Your task to perform on an android device: all mails in gmail Image 0: 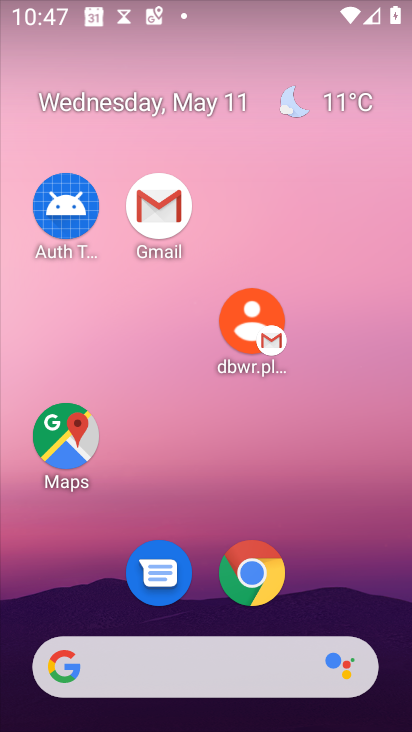
Step 0: drag from (390, 685) to (155, 199)
Your task to perform on an android device: all mails in gmail Image 1: 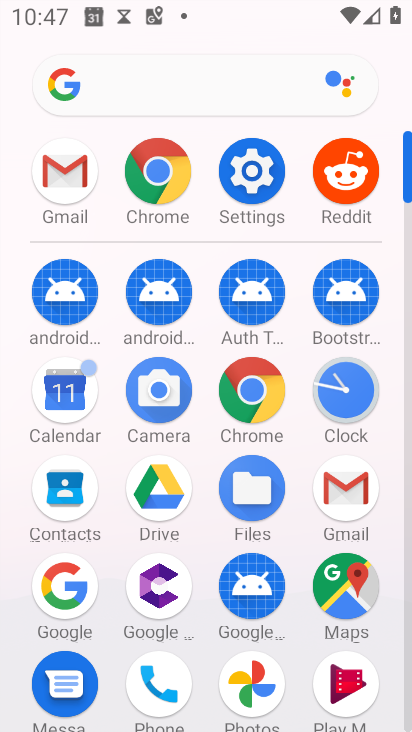
Step 1: click (341, 487)
Your task to perform on an android device: all mails in gmail Image 2: 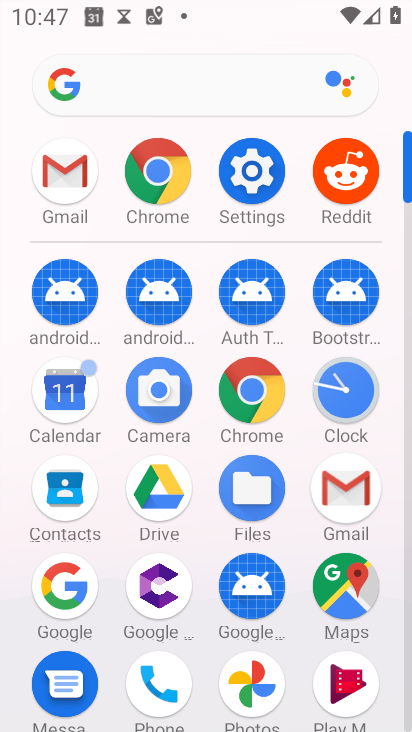
Step 2: click (341, 487)
Your task to perform on an android device: all mails in gmail Image 3: 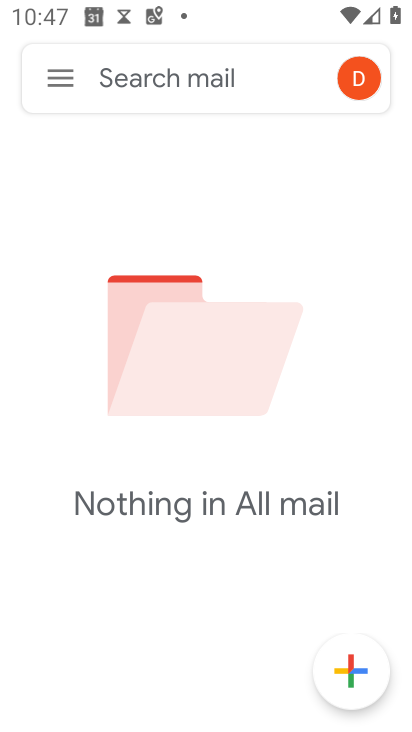
Step 3: click (57, 65)
Your task to perform on an android device: all mails in gmail Image 4: 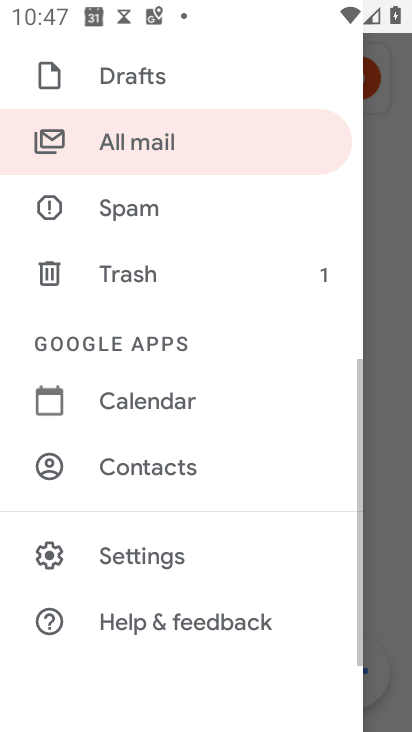
Step 4: click (124, 149)
Your task to perform on an android device: all mails in gmail Image 5: 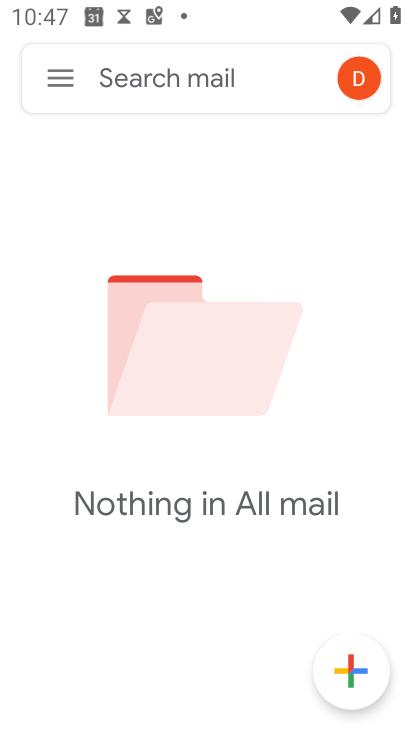
Step 5: task complete